Your task to perform on an android device: change the clock display to show seconds Image 0: 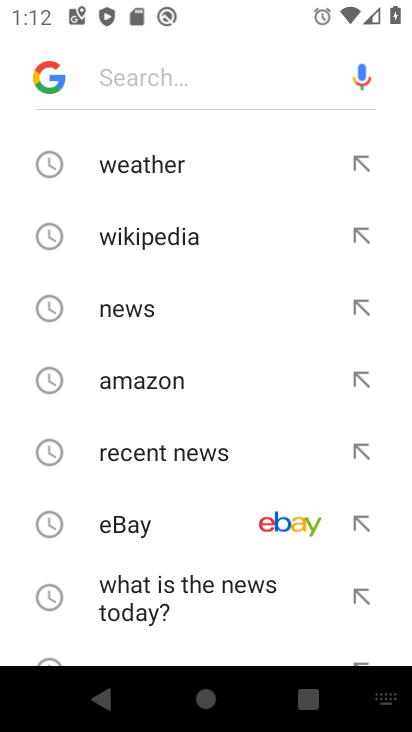
Step 0: press home button
Your task to perform on an android device: change the clock display to show seconds Image 1: 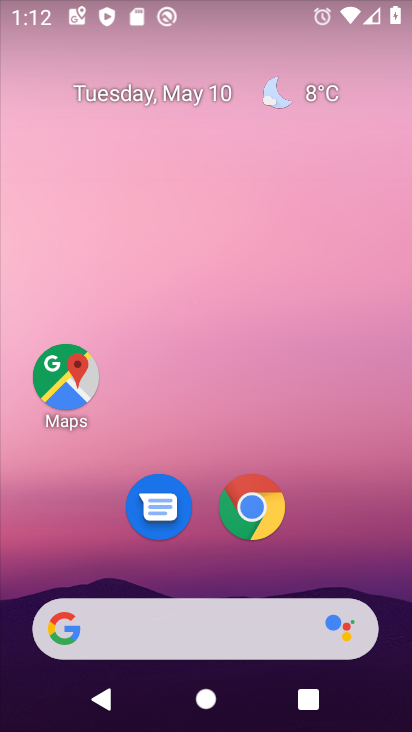
Step 1: drag from (226, 728) to (235, 92)
Your task to perform on an android device: change the clock display to show seconds Image 2: 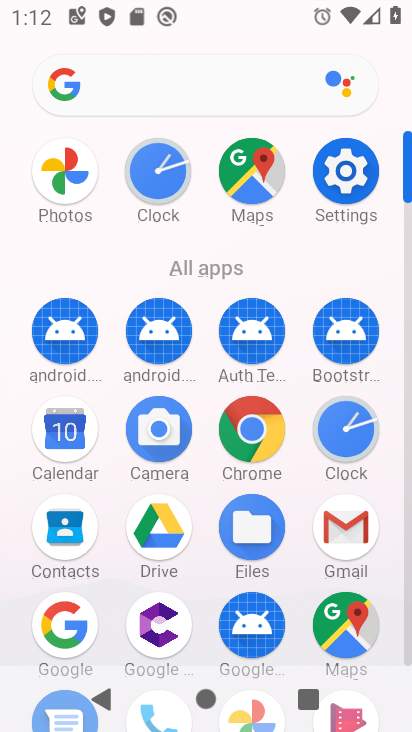
Step 2: click (346, 424)
Your task to perform on an android device: change the clock display to show seconds Image 3: 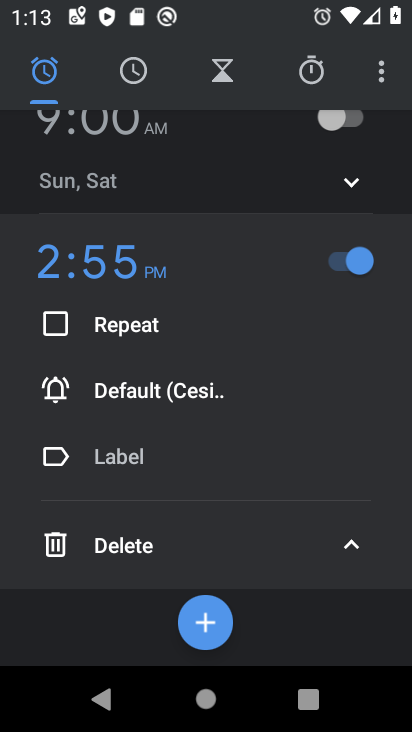
Step 3: click (383, 81)
Your task to perform on an android device: change the clock display to show seconds Image 4: 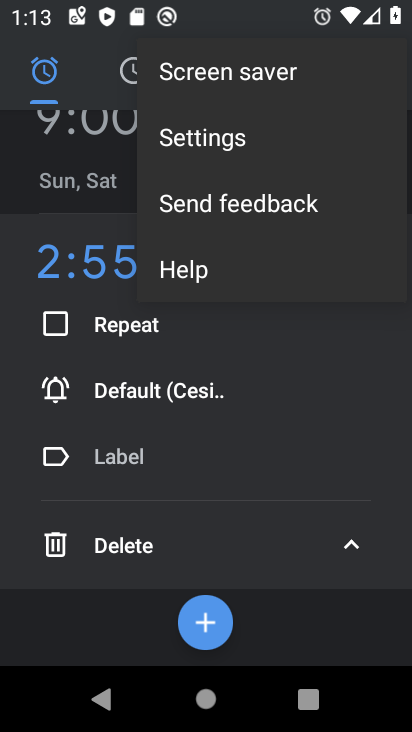
Step 4: click (217, 145)
Your task to perform on an android device: change the clock display to show seconds Image 5: 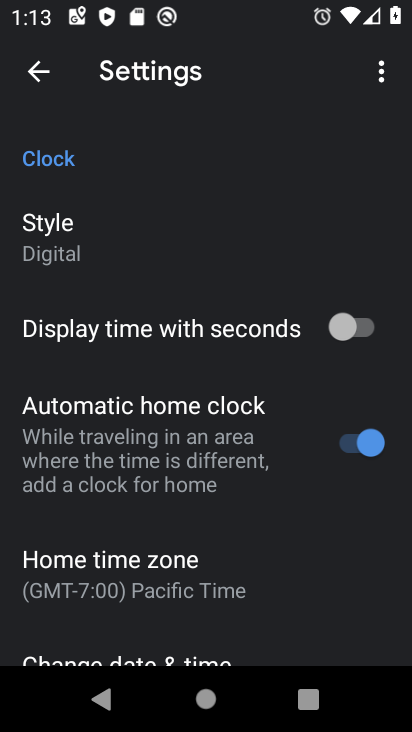
Step 5: click (353, 328)
Your task to perform on an android device: change the clock display to show seconds Image 6: 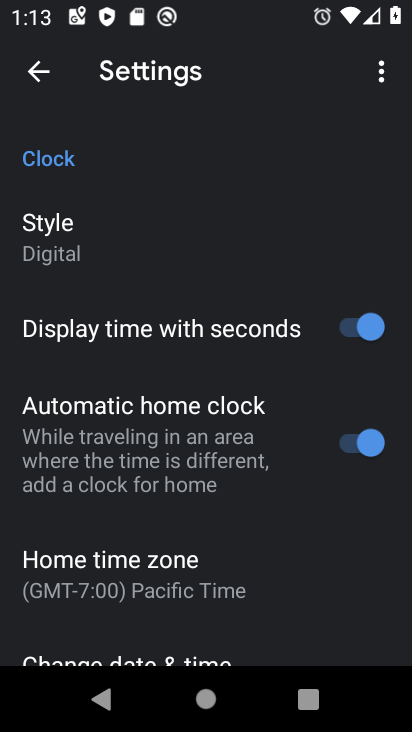
Step 6: task complete